Your task to perform on an android device: allow cookies in the chrome app Image 0: 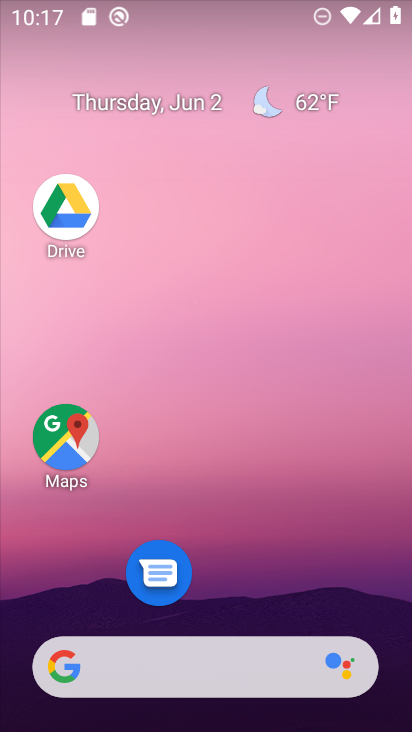
Step 0: drag from (210, 606) to (153, 113)
Your task to perform on an android device: allow cookies in the chrome app Image 1: 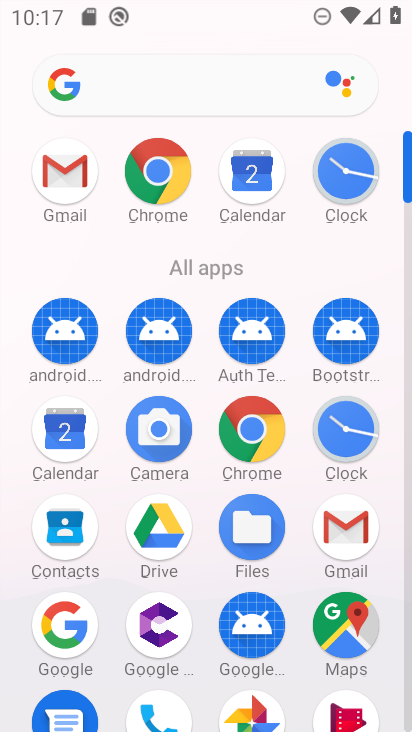
Step 1: click (253, 443)
Your task to perform on an android device: allow cookies in the chrome app Image 2: 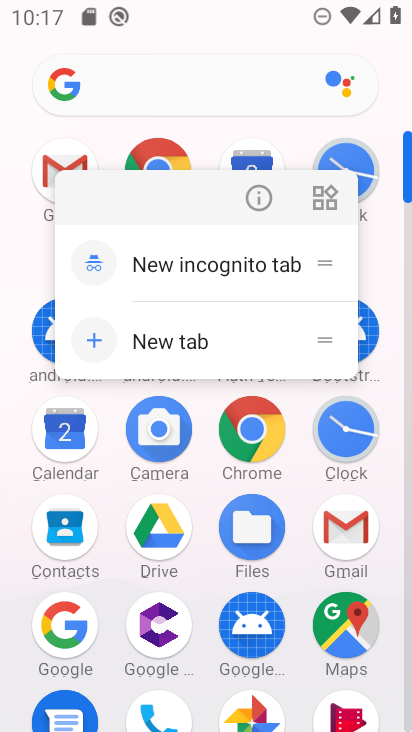
Step 2: click (253, 443)
Your task to perform on an android device: allow cookies in the chrome app Image 3: 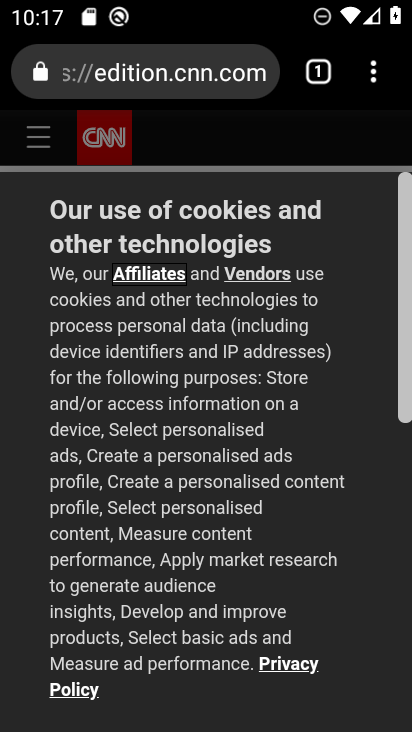
Step 3: drag from (379, 70) to (139, 591)
Your task to perform on an android device: allow cookies in the chrome app Image 4: 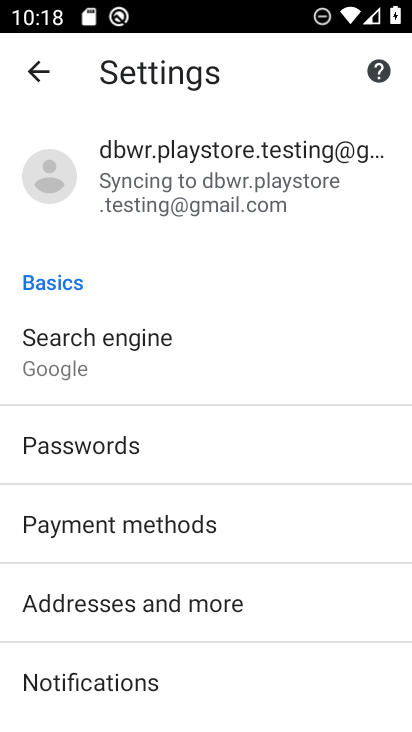
Step 4: drag from (241, 592) to (224, 118)
Your task to perform on an android device: allow cookies in the chrome app Image 5: 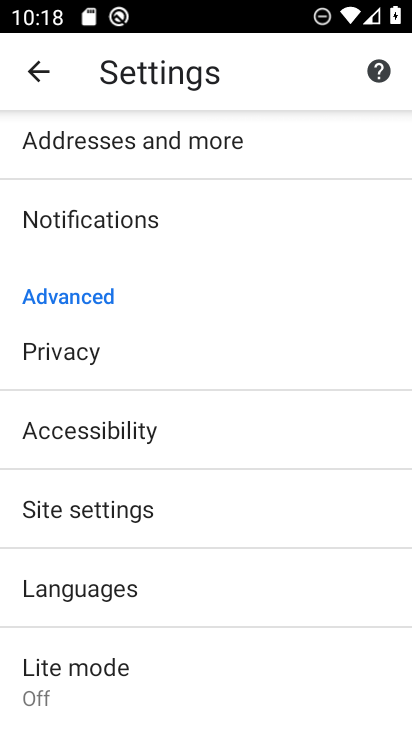
Step 5: click (170, 510)
Your task to perform on an android device: allow cookies in the chrome app Image 6: 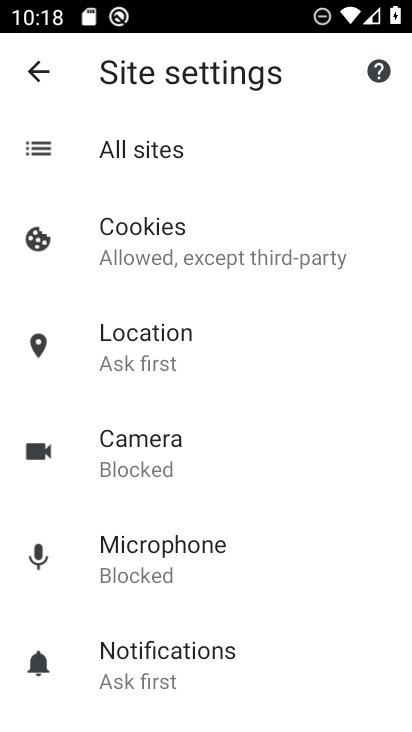
Step 6: click (179, 239)
Your task to perform on an android device: allow cookies in the chrome app Image 7: 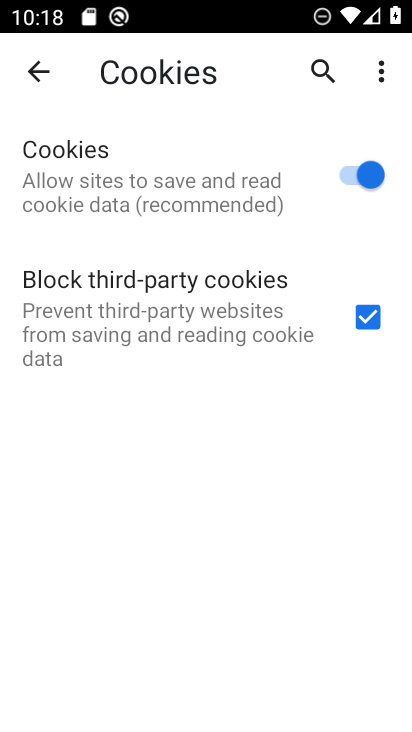
Step 7: task complete